Your task to perform on an android device: Search for Mexican restaurants on Maps Image 0: 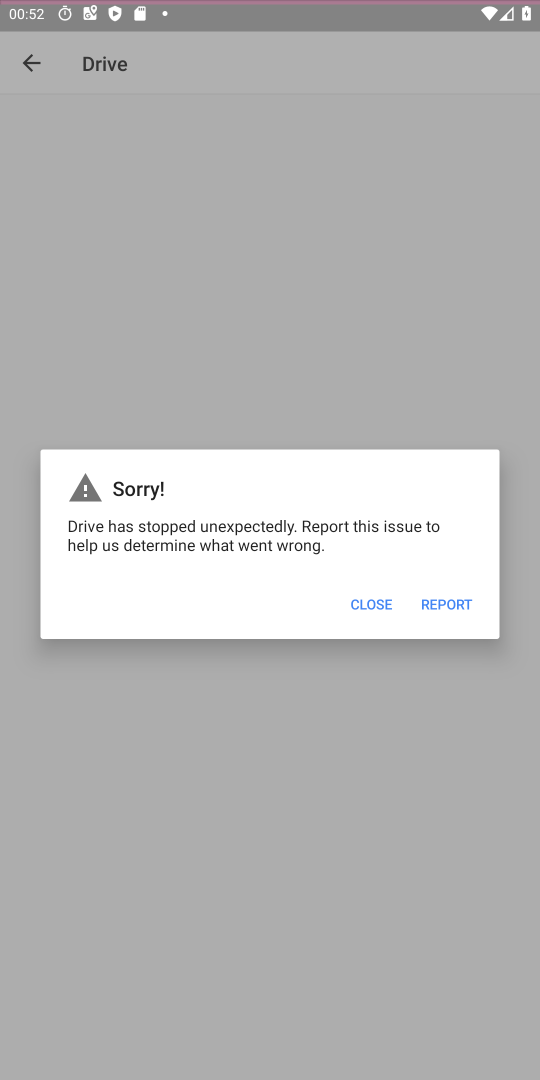
Step 0: press home button
Your task to perform on an android device: Search for Mexican restaurants on Maps Image 1: 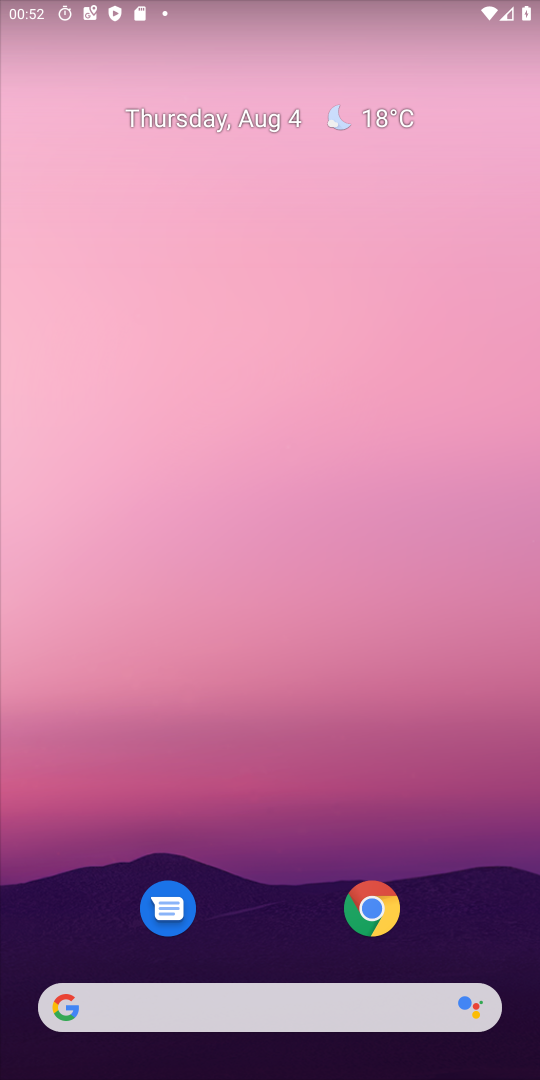
Step 1: drag from (328, 1010) to (386, 402)
Your task to perform on an android device: Search for Mexican restaurants on Maps Image 2: 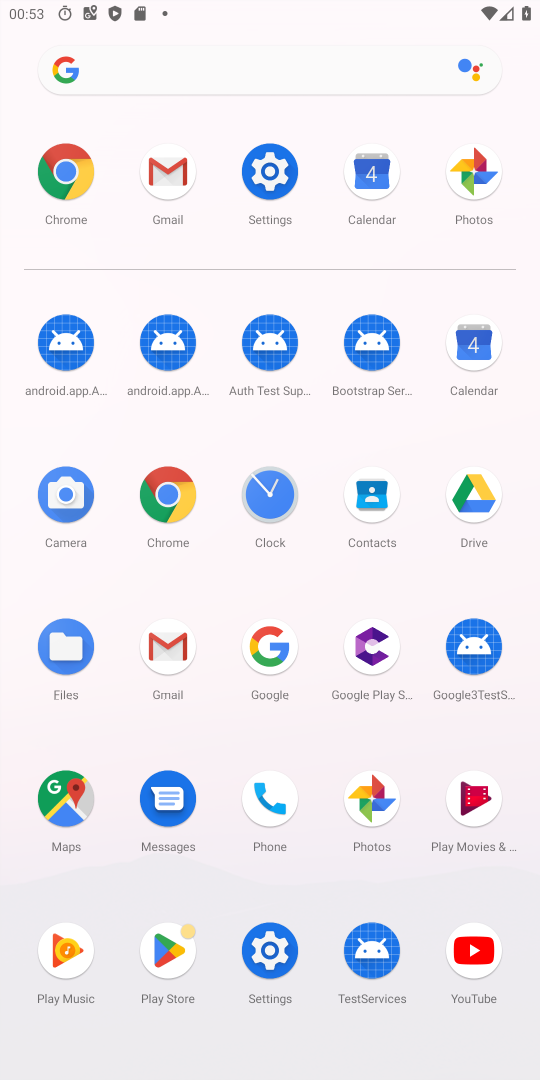
Step 2: click (62, 821)
Your task to perform on an android device: Search for Mexican restaurants on Maps Image 3: 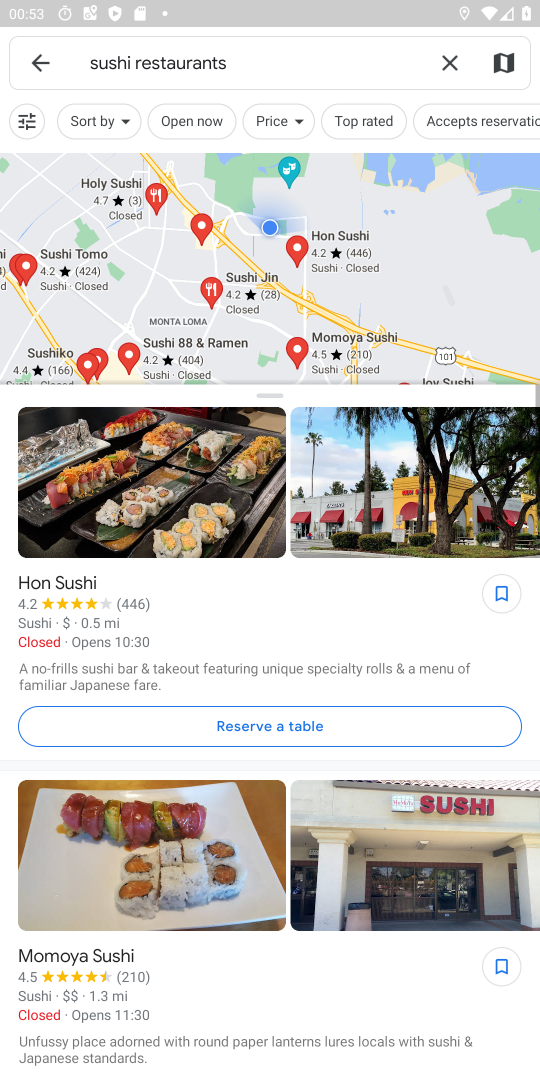
Step 3: click (451, 51)
Your task to perform on an android device: Search for Mexican restaurants on Maps Image 4: 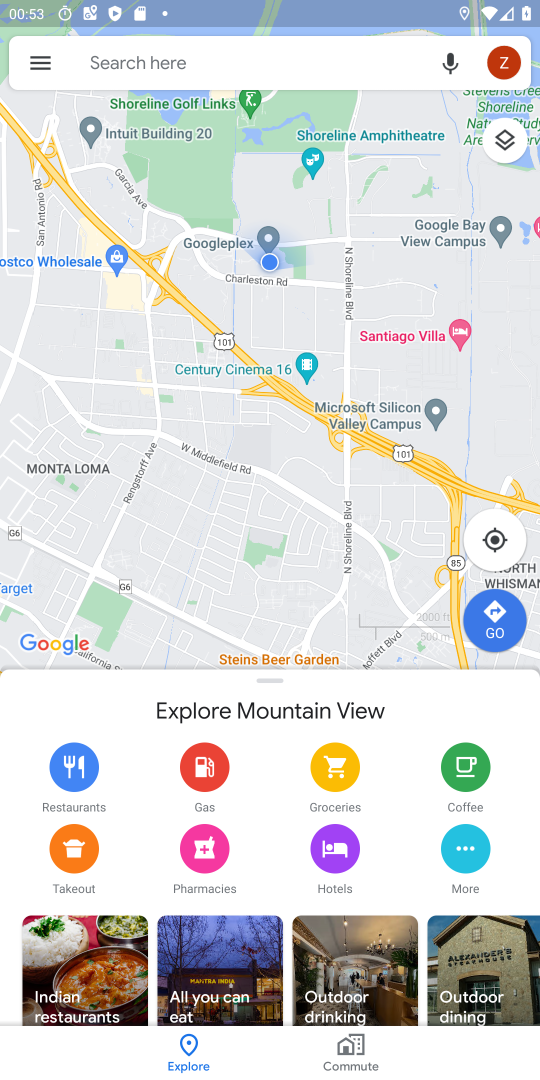
Step 4: click (153, 47)
Your task to perform on an android device: Search for Mexican restaurants on Maps Image 5: 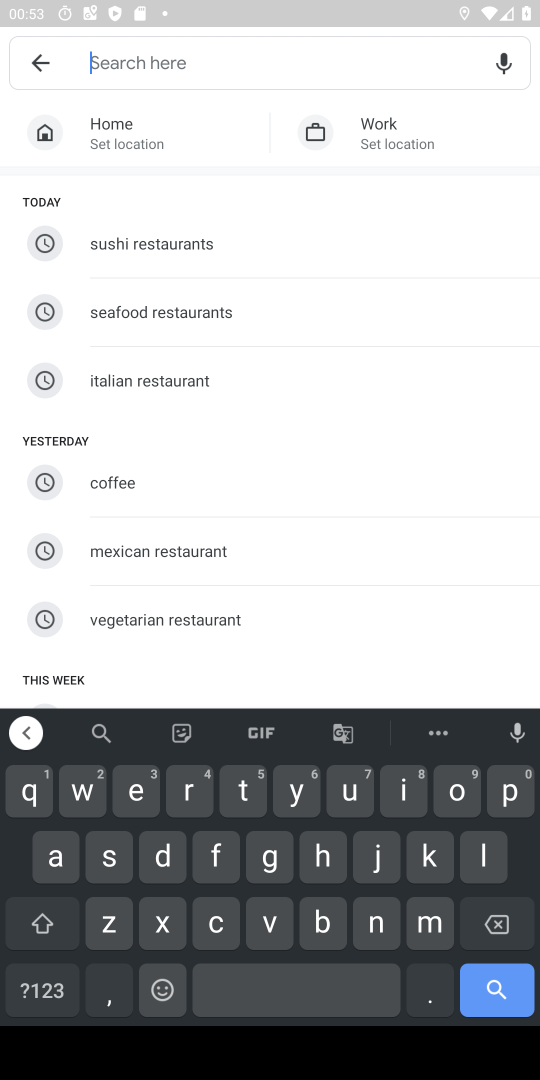
Step 5: click (179, 555)
Your task to perform on an android device: Search for Mexican restaurants on Maps Image 6: 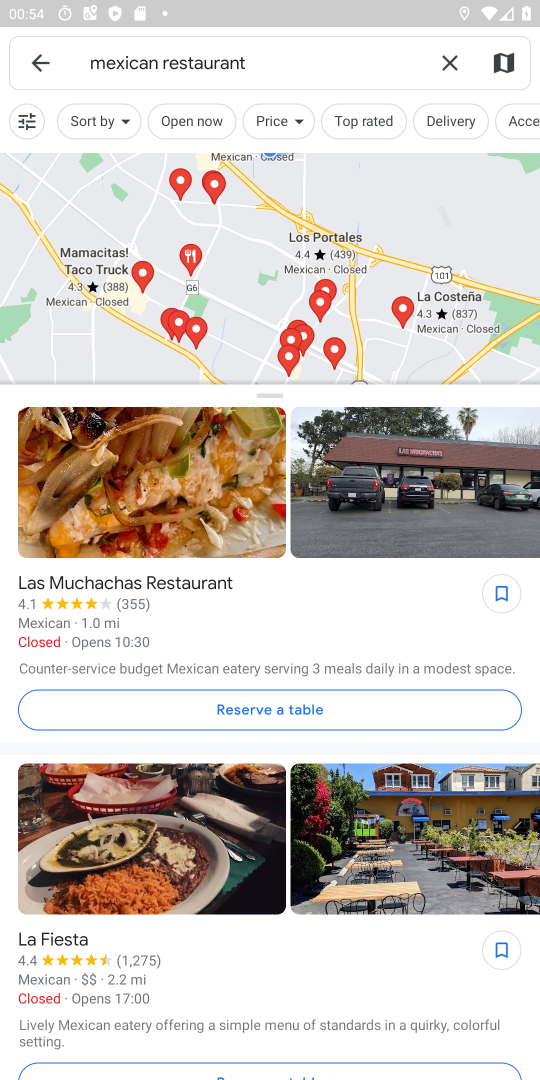
Step 6: task complete